Your task to perform on an android device: Go to ESPN.com Image 0: 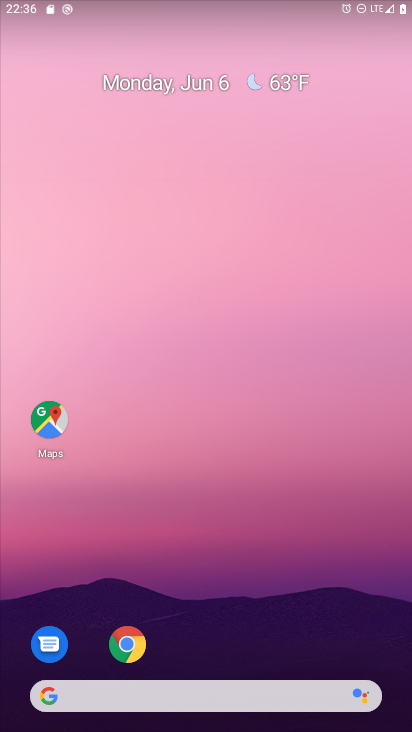
Step 0: drag from (214, 712) to (292, 230)
Your task to perform on an android device: Go to ESPN.com Image 1: 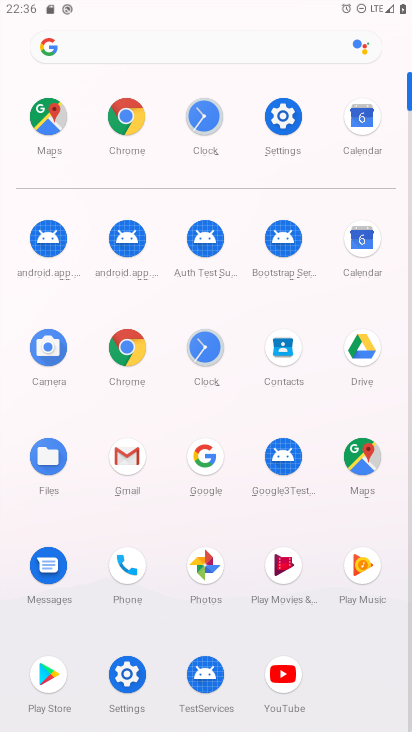
Step 1: click (123, 124)
Your task to perform on an android device: Go to ESPN.com Image 2: 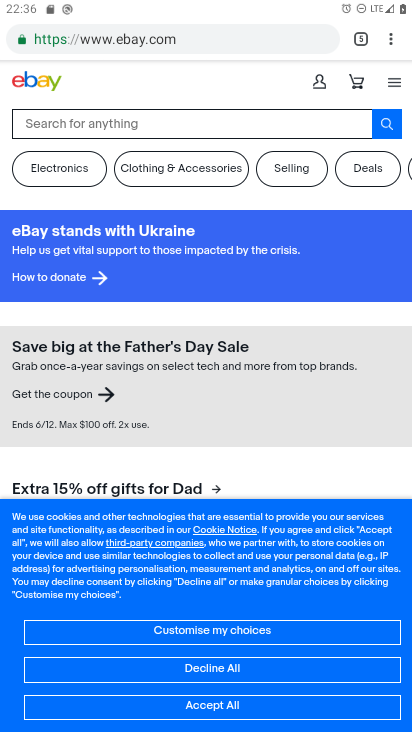
Step 2: click (235, 57)
Your task to perform on an android device: Go to ESPN.com Image 3: 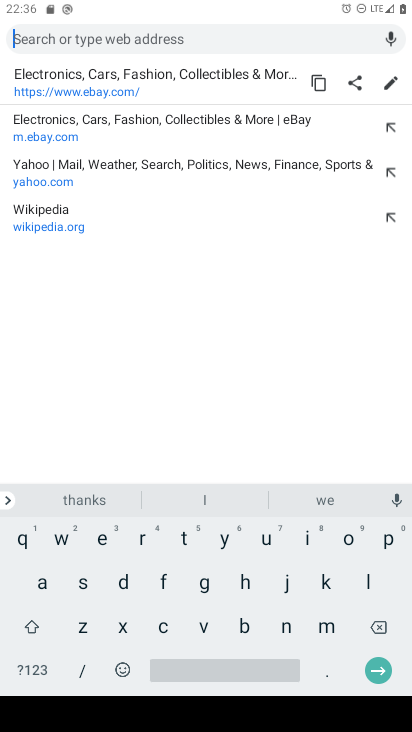
Step 3: click (100, 538)
Your task to perform on an android device: Go to ESPN.com Image 4: 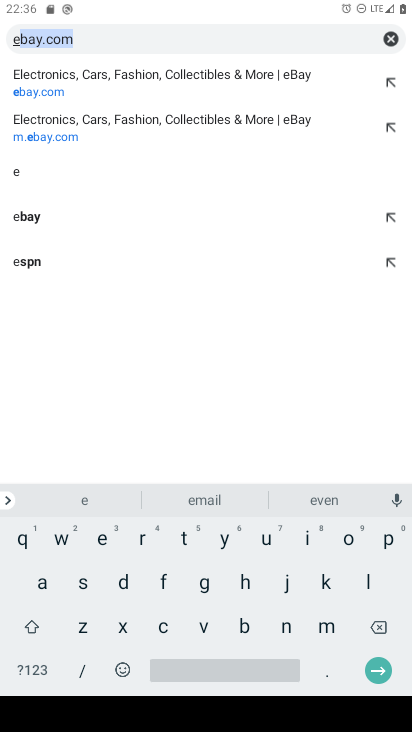
Step 4: click (83, 593)
Your task to perform on an android device: Go to ESPN.com Image 5: 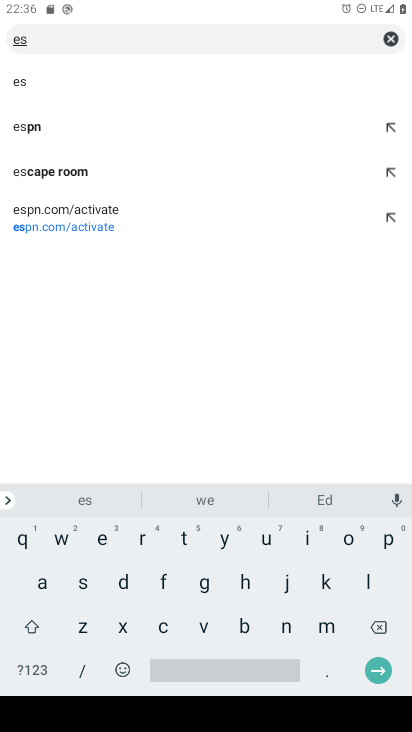
Step 5: click (80, 117)
Your task to perform on an android device: Go to ESPN.com Image 6: 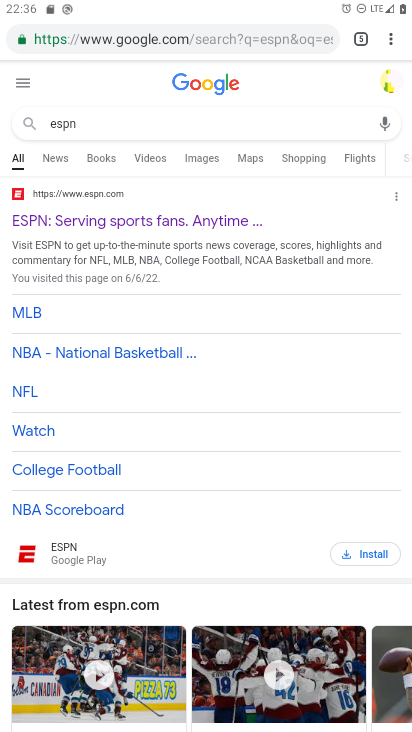
Step 6: click (83, 219)
Your task to perform on an android device: Go to ESPN.com Image 7: 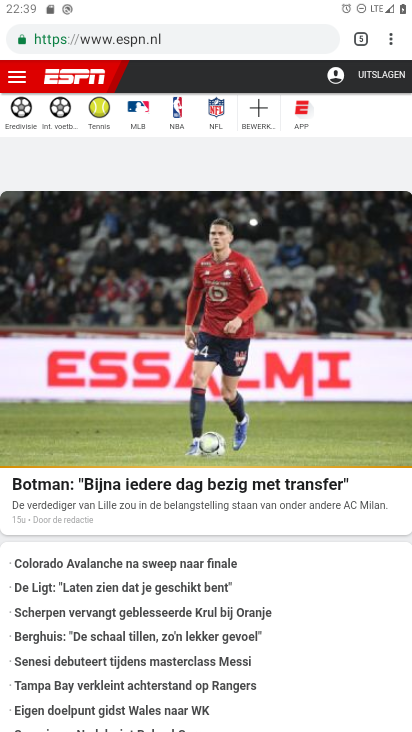
Step 7: task complete